Your task to perform on an android device: toggle translation in the chrome app Image 0: 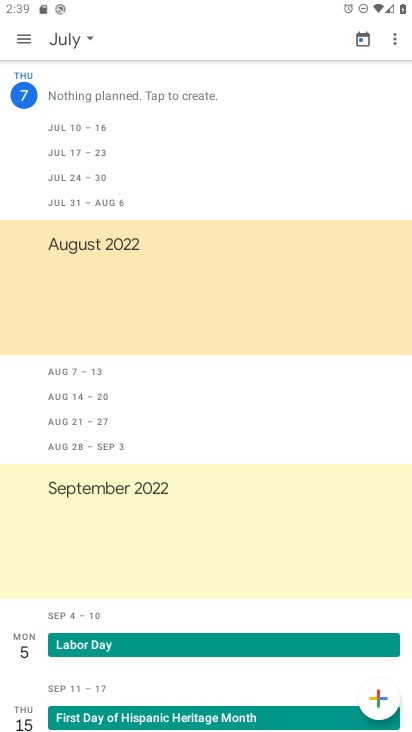
Step 0: press home button
Your task to perform on an android device: toggle translation in the chrome app Image 1: 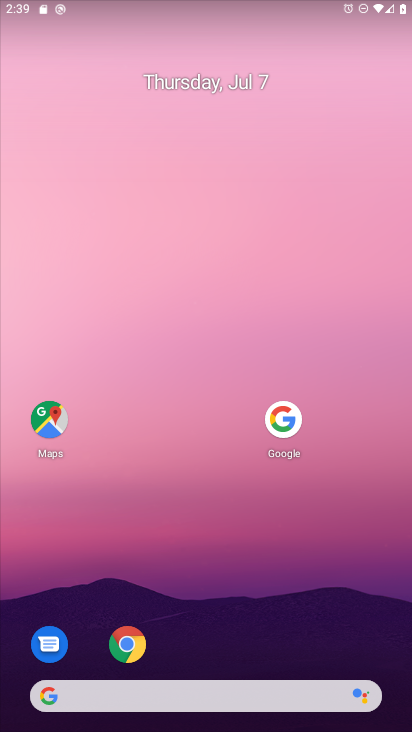
Step 1: click (122, 638)
Your task to perform on an android device: toggle translation in the chrome app Image 2: 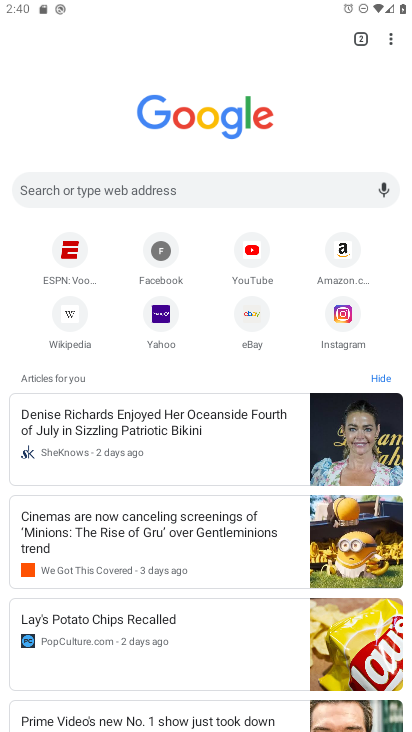
Step 2: click (387, 55)
Your task to perform on an android device: toggle translation in the chrome app Image 3: 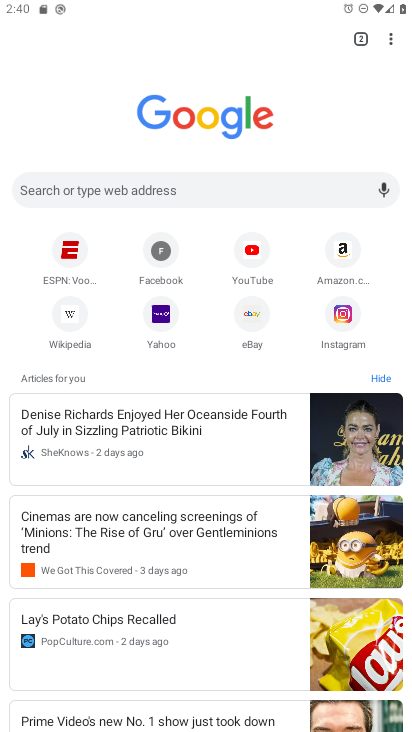
Step 3: click (387, 45)
Your task to perform on an android device: toggle translation in the chrome app Image 4: 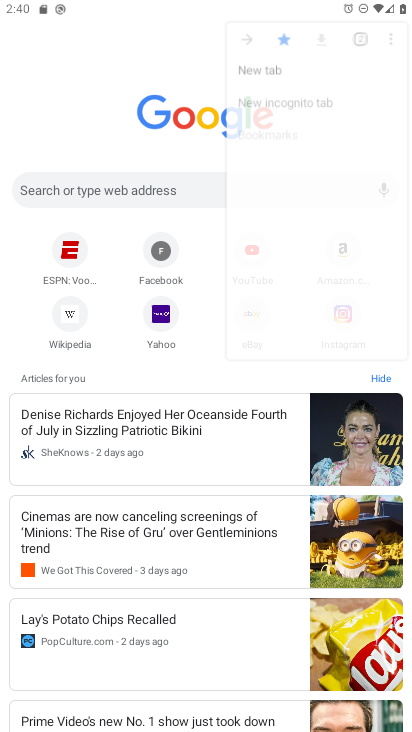
Step 4: click (382, 48)
Your task to perform on an android device: toggle translation in the chrome app Image 5: 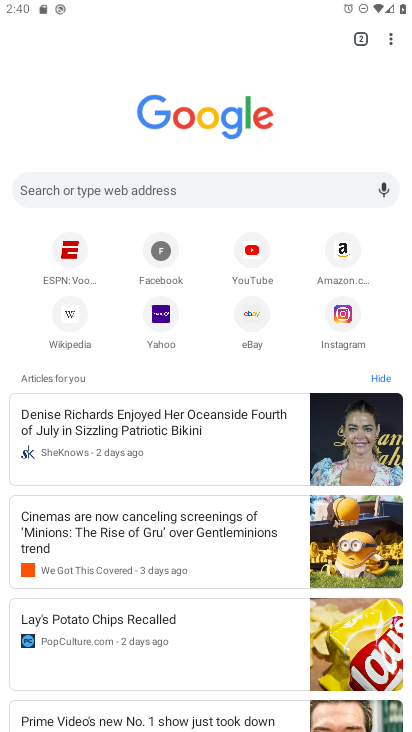
Step 5: click (389, 45)
Your task to perform on an android device: toggle translation in the chrome app Image 6: 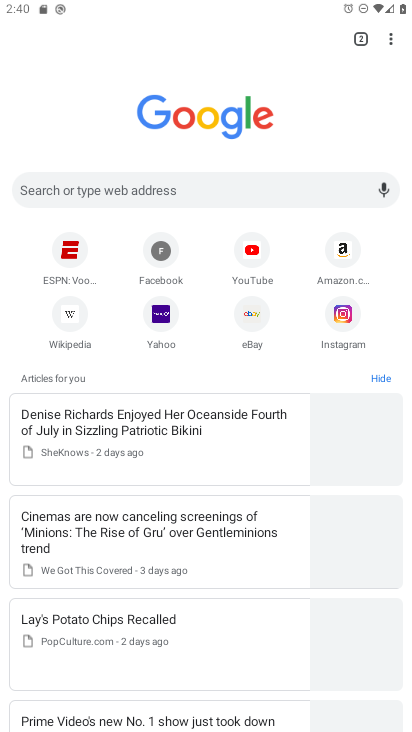
Step 6: click (385, 45)
Your task to perform on an android device: toggle translation in the chrome app Image 7: 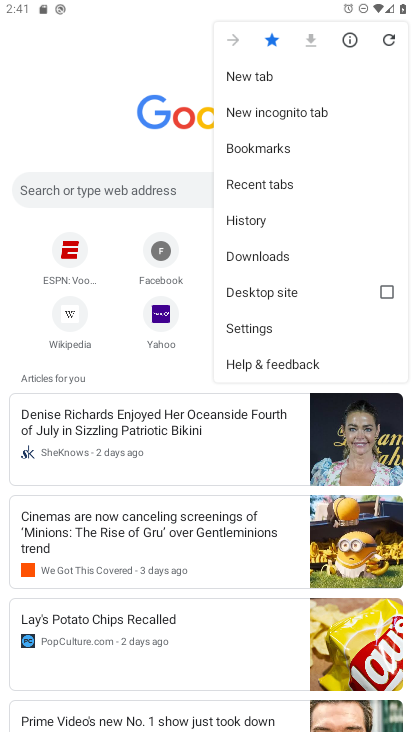
Step 7: click (262, 330)
Your task to perform on an android device: toggle translation in the chrome app Image 8: 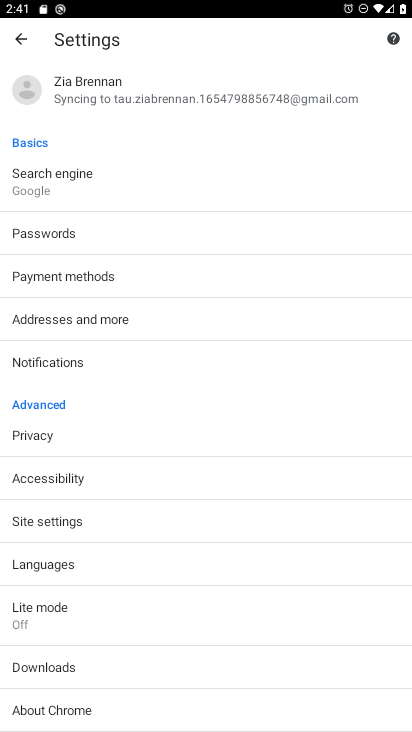
Step 8: click (49, 563)
Your task to perform on an android device: toggle translation in the chrome app Image 9: 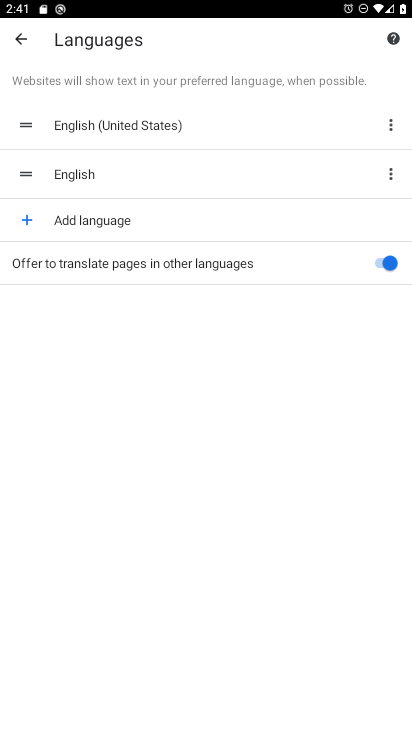
Step 9: click (382, 263)
Your task to perform on an android device: toggle translation in the chrome app Image 10: 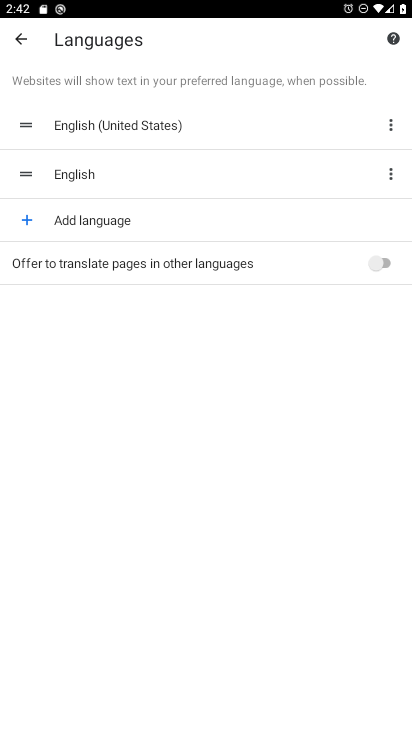
Step 10: task complete